Your task to perform on an android device: What's on my calendar today? Image 0: 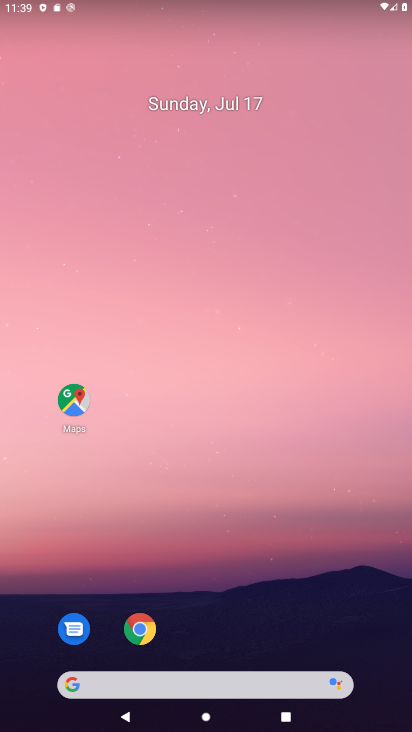
Step 0: press home button
Your task to perform on an android device: What's on my calendar today? Image 1: 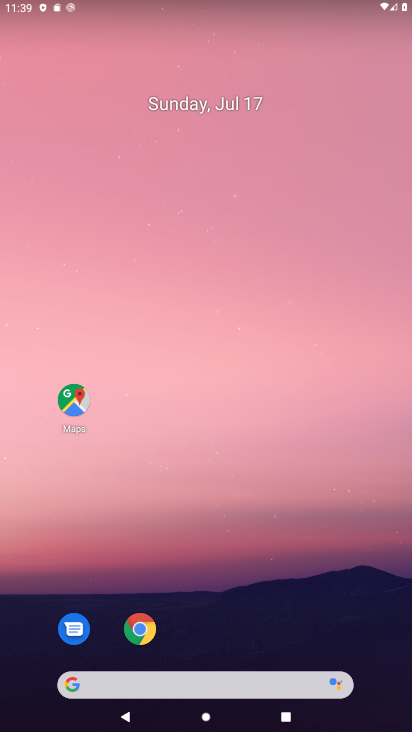
Step 1: drag from (203, 610) to (203, 72)
Your task to perform on an android device: What's on my calendar today? Image 2: 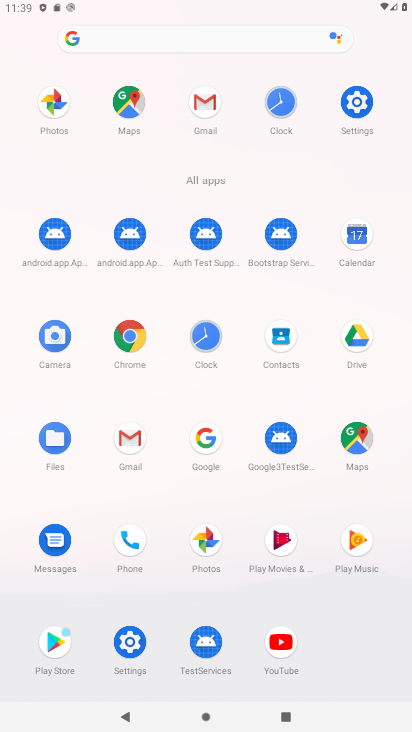
Step 2: click (351, 230)
Your task to perform on an android device: What's on my calendar today? Image 3: 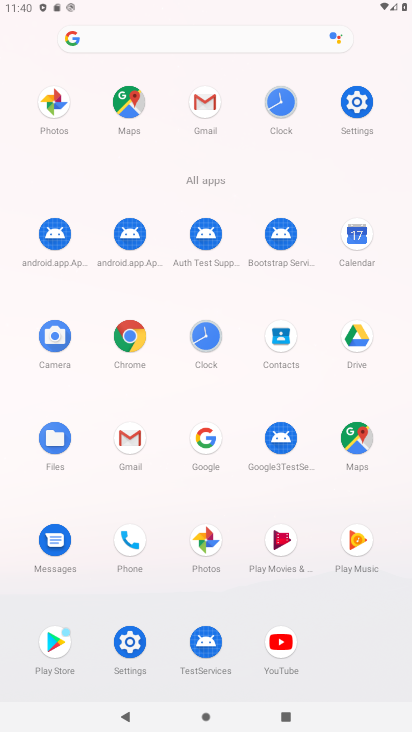
Step 3: click (355, 231)
Your task to perform on an android device: What's on my calendar today? Image 4: 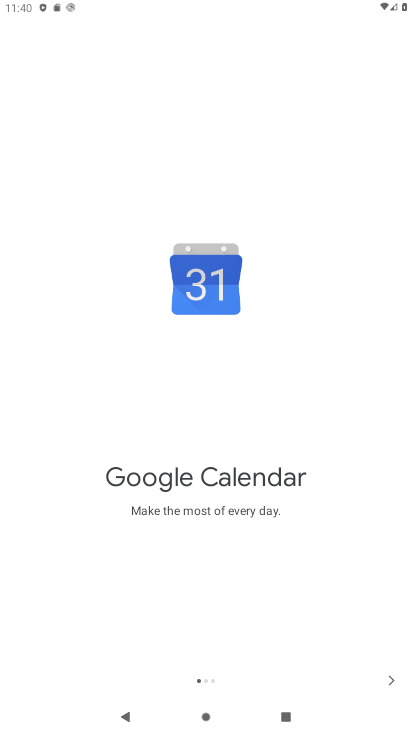
Step 4: click (390, 678)
Your task to perform on an android device: What's on my calendar today? Image 5: 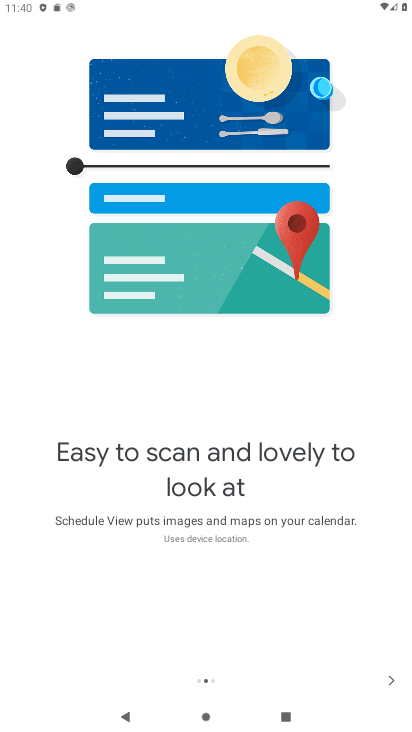
Step 5: click (388, 677)
Your task to perform on an android device: What's on my calendar today? Image 6: 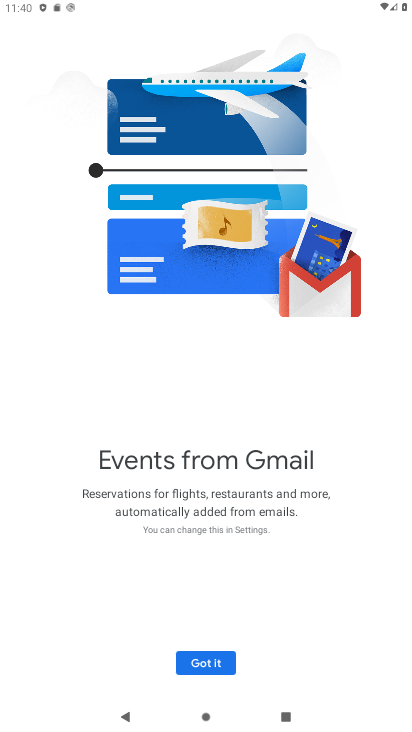
Step 6: click (209, 658)
Your task to perform on an android device: What's on my calendar today? Image 7: 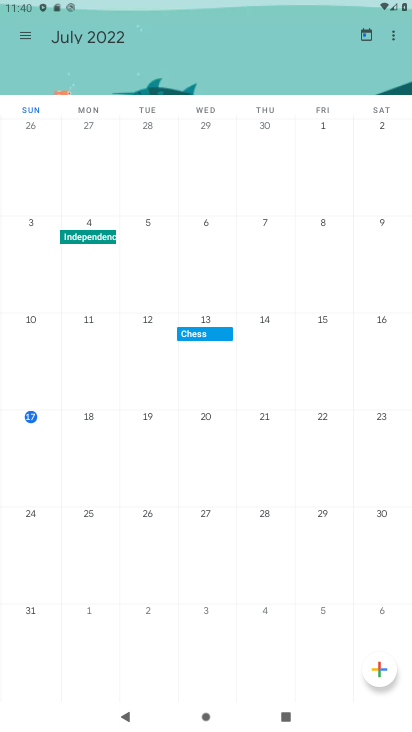
Step 7: click (27, 33)
Your task to perform on an android device: What's on my calendar today? Image 8: 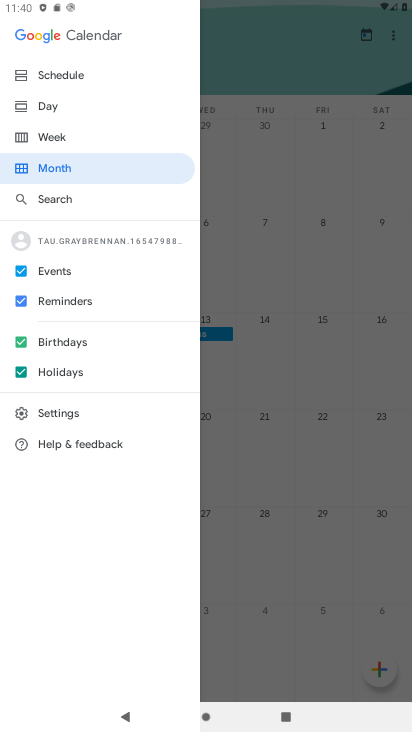
Step 8: click (299, 431)
Your task to perform on an android device: What's on my calendar today? Image 9: 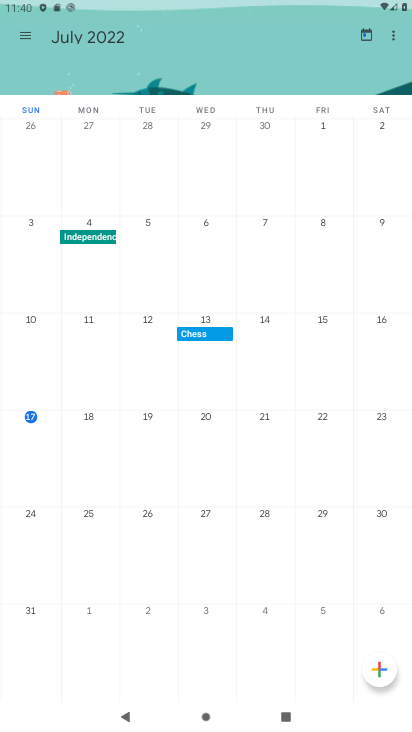
Step 9: click (27, 424)
Your task to perform on an android device: What's on my calendar today? Image 10: 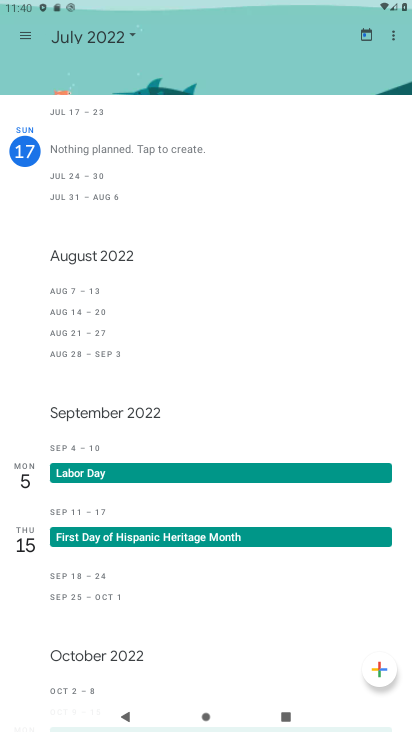
Step 10: click (20, 150)
Your task to perform on an android device: What's on my calendar today? Image 11: 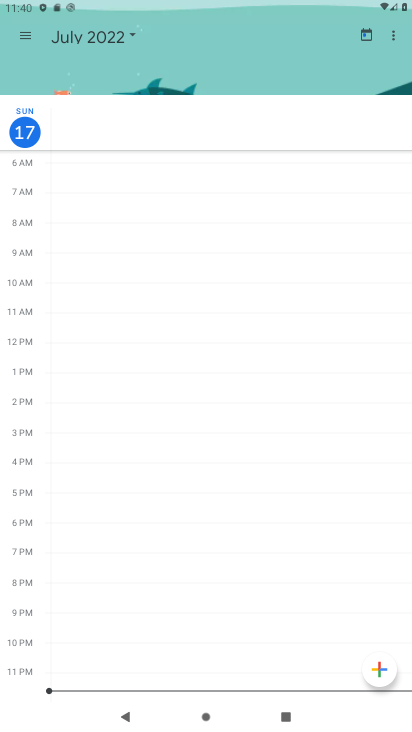
Step 11: task complete